Your task to perform on an android device: Search for "alienware area 51" on costco, select the first entry, add it to the cart, then select checkout. Image 0: 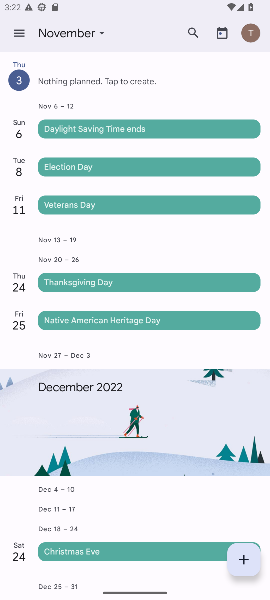
Step 0: press home button
Your task to perform on an android device: Search for "alienware area 51" on costco, select the first entry, add it to the cart, then select checkout. Image 1: 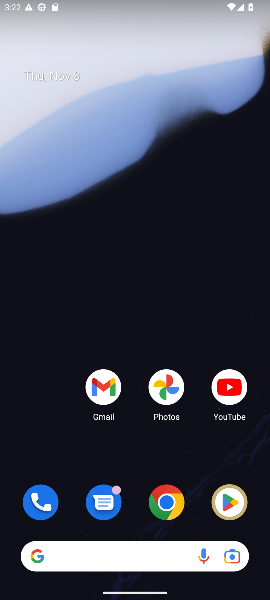
Step 1: drag from (153, 513) to (153, 339)
Your task to perform on an android device: Search for "alienware area 51" on costco, select the first entry, add it to the cart, then select checkout. Image 2: 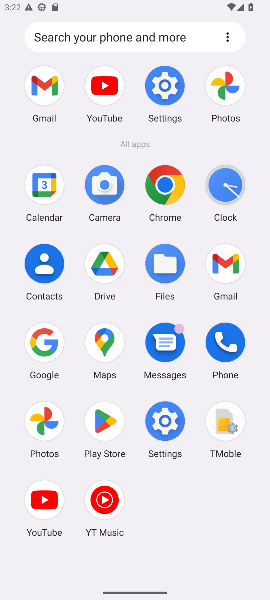
Step 2: click (39, 365)
Your task to perform on an android device: Search for "alienware area 51" on costco, select the first entry, add it to the cart, then select checkout. Image 3: 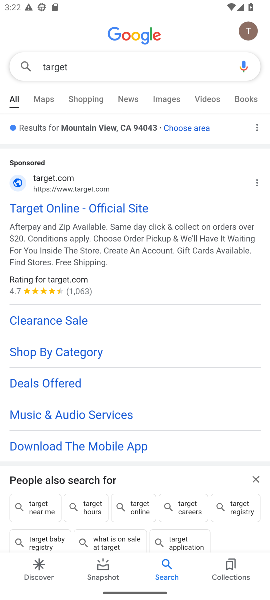
Step 3: click (140, 68)
Your task to perform on an android device: Search for "alienware area 51" on costco, select the first entry, add it to the cart, then select checkout. Image 4: 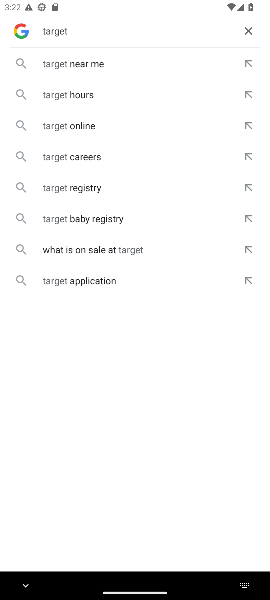
Step 4: click (244, 24)
Your task to perform on an android device: Search for "alienware area 51" on costco, select the first entry, add it to the cart, then select checkout. Image 5: 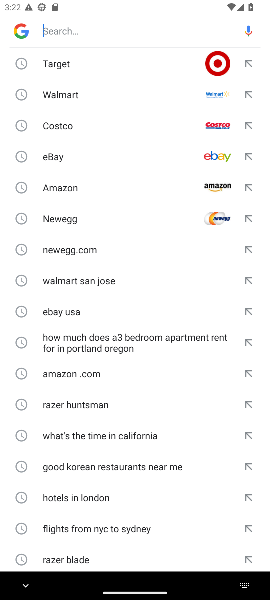
Step 5: type "costco"
Your task to perform on an android device: Search for "alienware area 51" on costco, select the first entry, add it to the cart, then select checkout. Image 6: 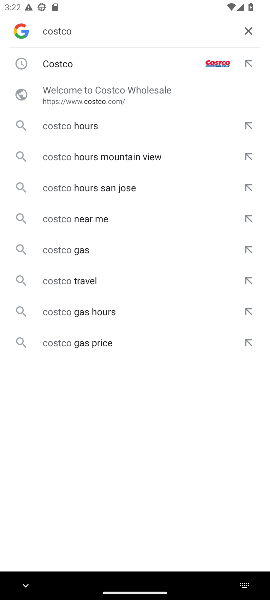
Step 6: click (105, 102)
Your task to perform on an android device: Search for "alienware area 51" on costco, select the first entry, add it to the cart, then select checkout. Image 7: 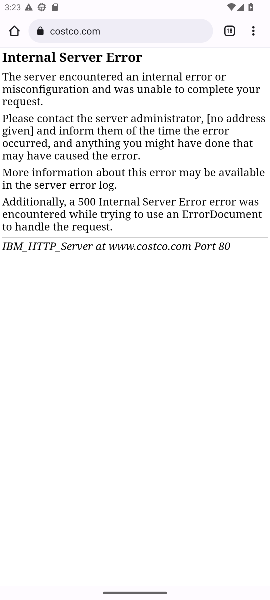
Step 7: task complete